Your task to perform on an android device: How do I get to the nearest IKEA? Image 0: 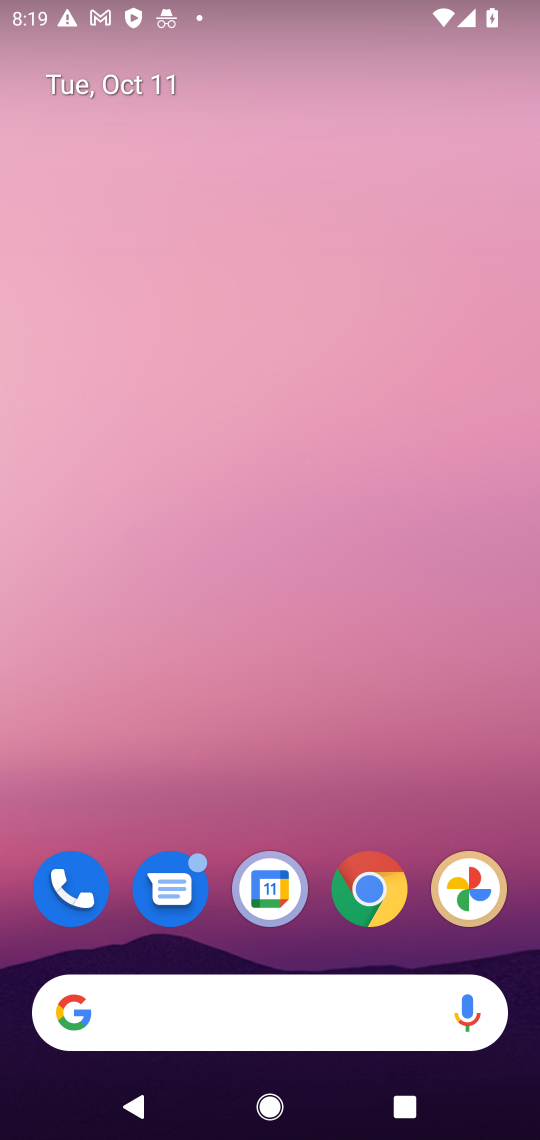
Step 0: click (312, 1025)
Your task to perform on an android device: How do I get to the nearest IKEA? Image 1: 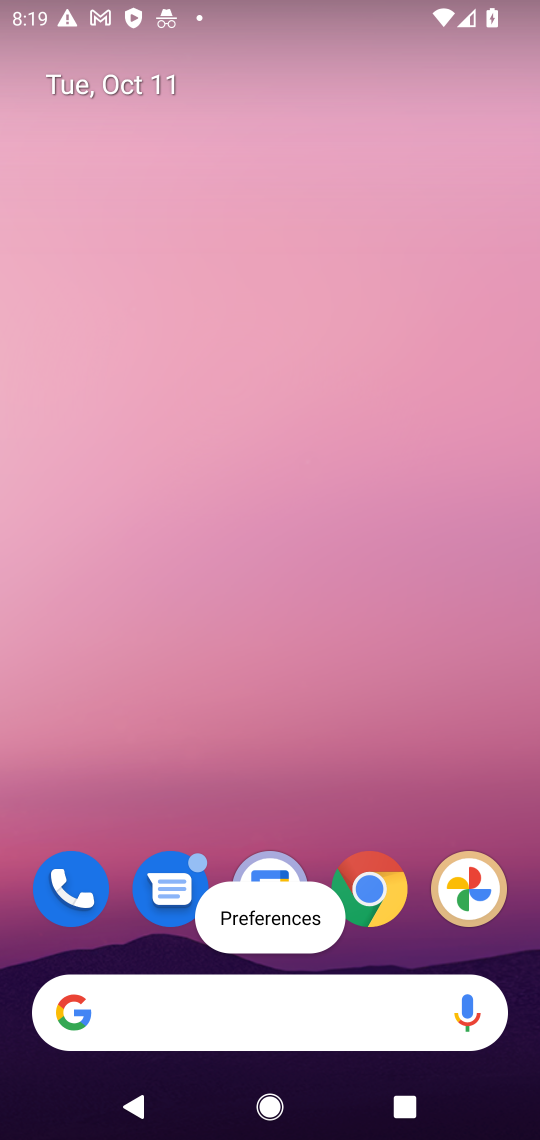
Step 1: click (251, 1037)
Your task to perform on an android device: How do I get to the nearest IKEA? Image 2: 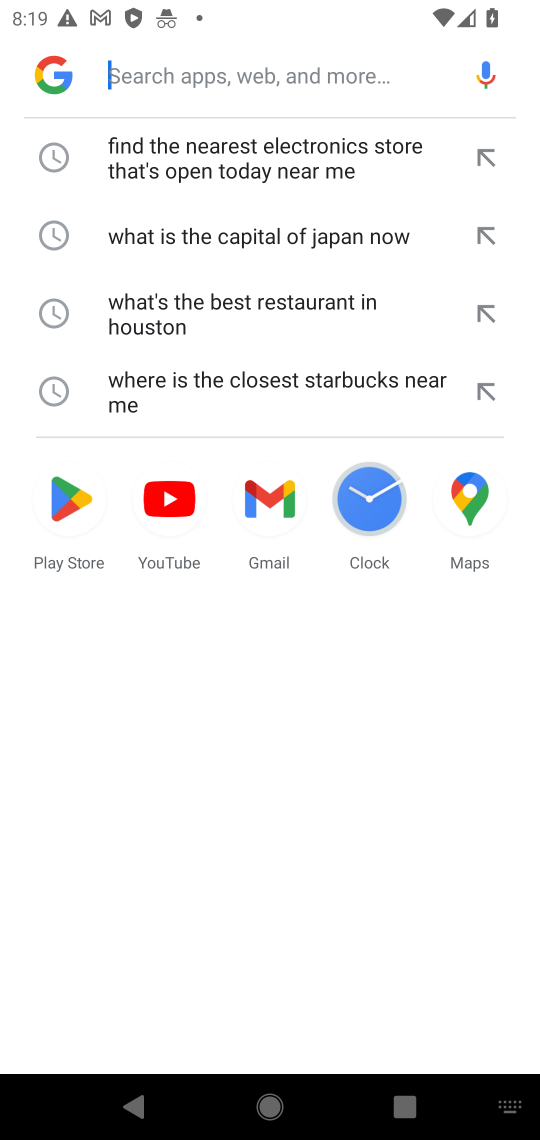
Step 2: click (184, 69)
Your task to perform on an android device: How do I get to the nearest IKEA? Image 3: 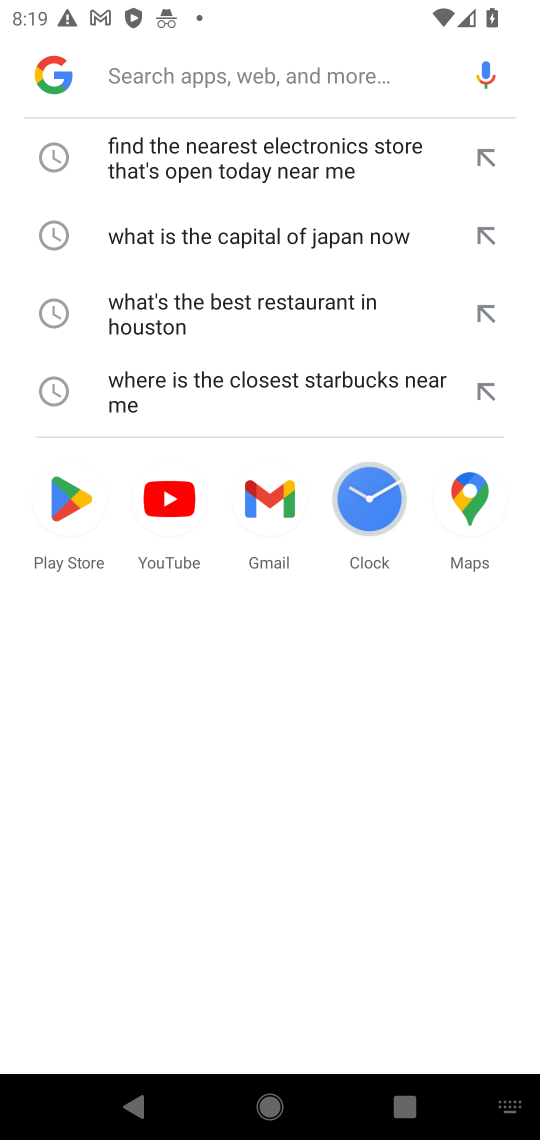
Step 3: type "How do I get to the nearest IKEA?"
Your task to perform on an android device: How do I get to the nearest IKEA? Image 4: 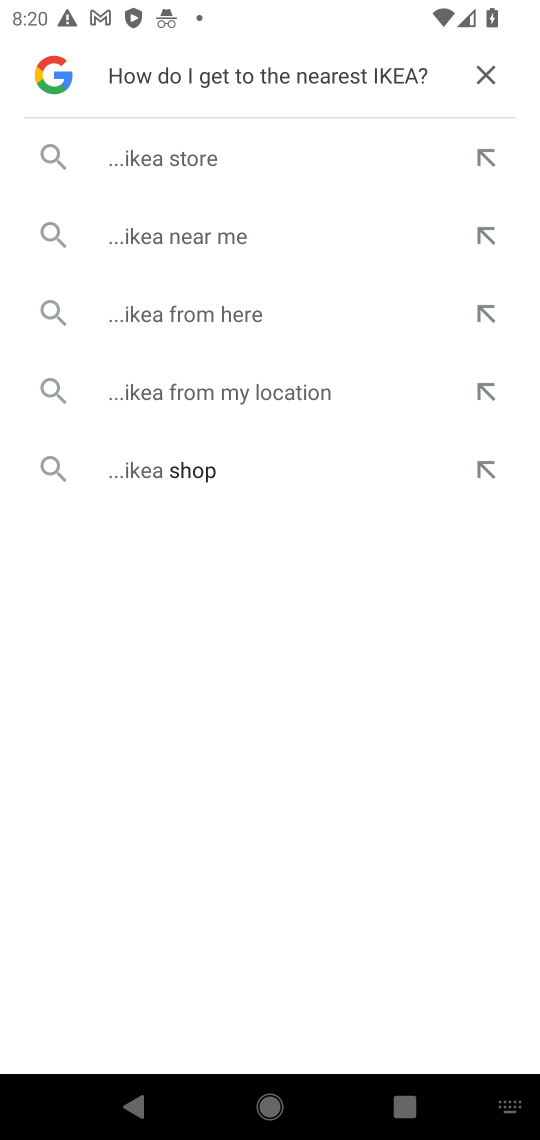
Step 4: click (232, 175)
Your task to perform on an android device: How do I get to the nearest IKEA? Image 5: 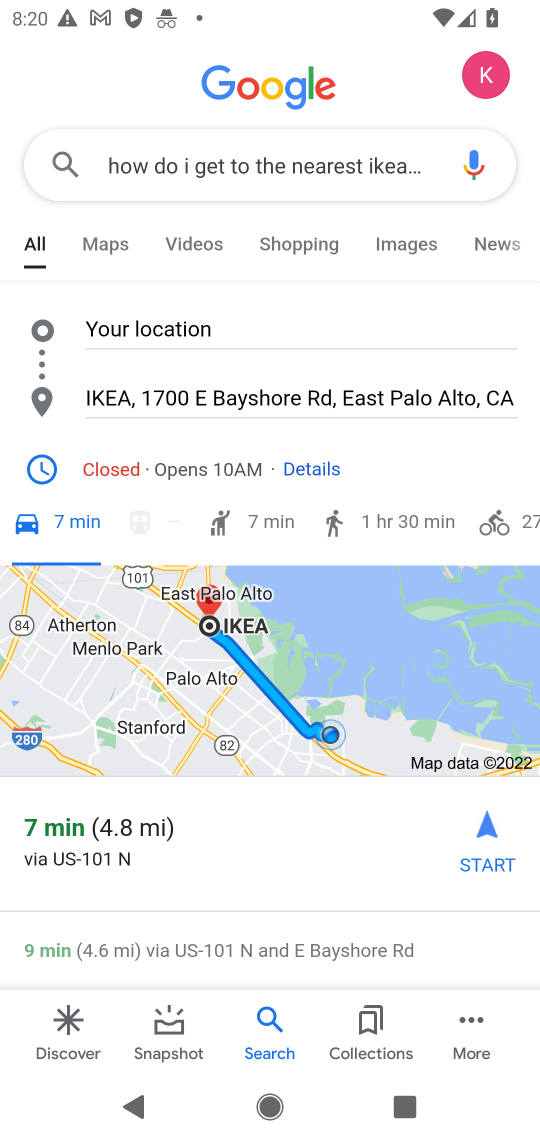
Step 5: task complete